Your task to perform on an android device: Open calendar and show me the first week of next month Image 0: 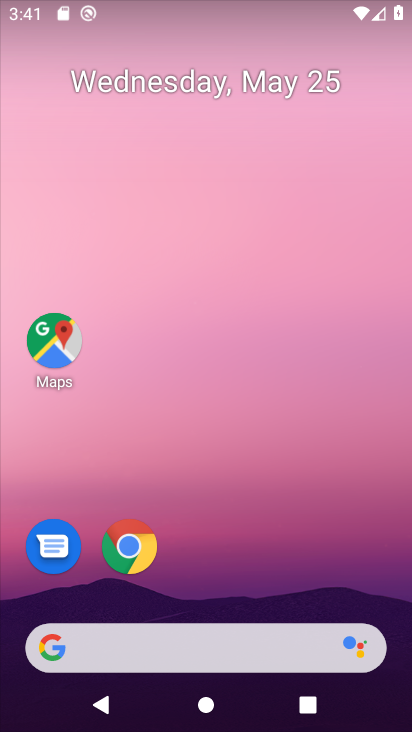
Step 0: drag from (220, 579) to (164, 231)
Your task to perform on an android device: Open calendar and show me the first week of next month Image 1: 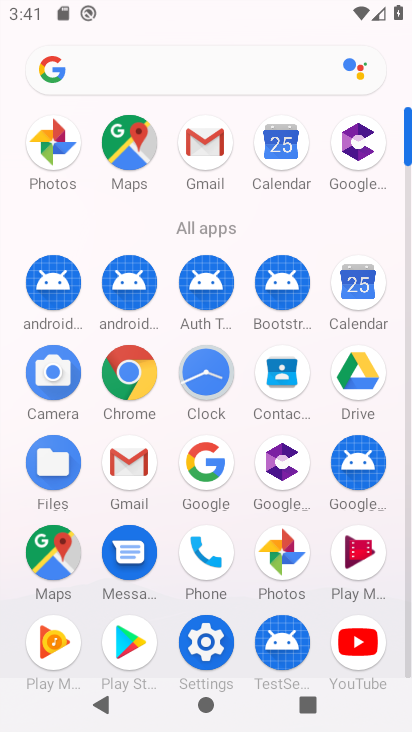
Step 1: click (351, 299)
Your task to perform on an android device: Open calendar and show me the first week of next month Image 2: 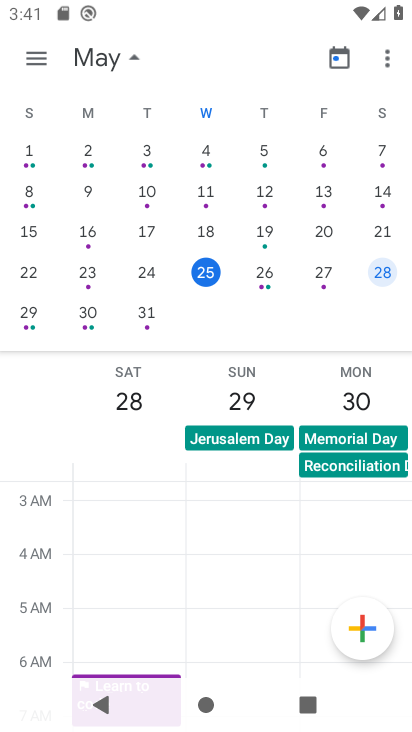
Step 2: drag from (385, 194) to (6, 212)
Your task to perform on an android device: Open calendar and show me the first week of next month Image 3: 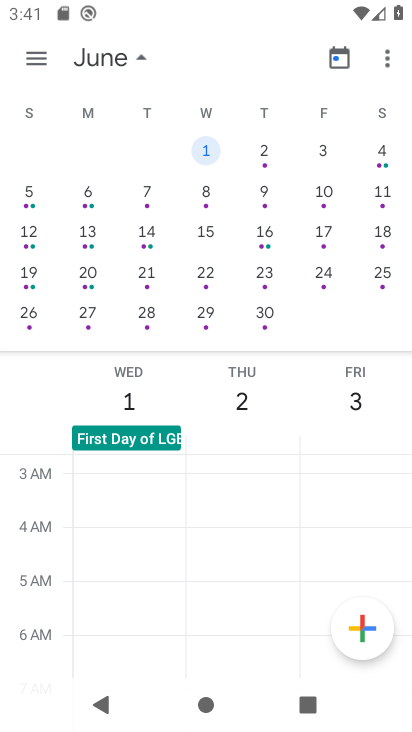
Step 3: click (207, 154)
Your task to perform on an android device: Open calendar and show me the first week of next month Image 4: 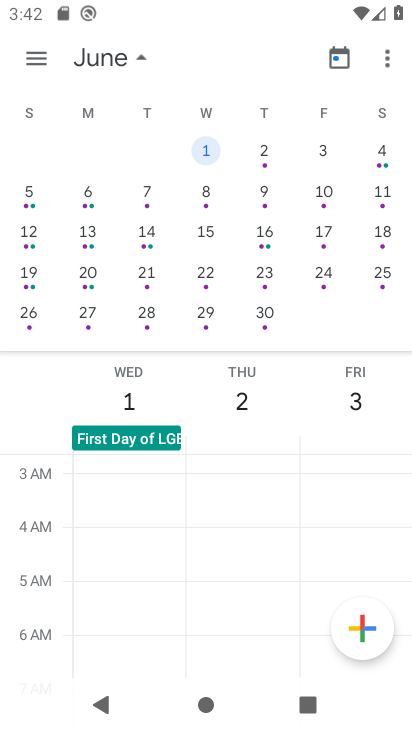
Step 4: task complete